Your task to perform on an android device: toggle sleep mode Image 0: 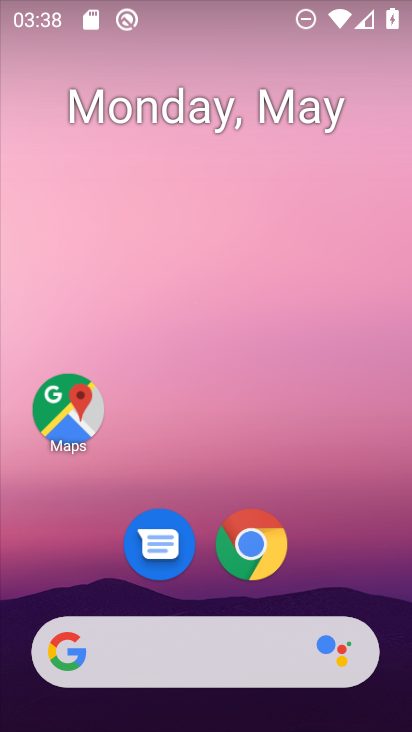
Step 0: drag from (369, 572) to (381, 223)
Your task to perform on an android device: toggle sleep mode Image 1: 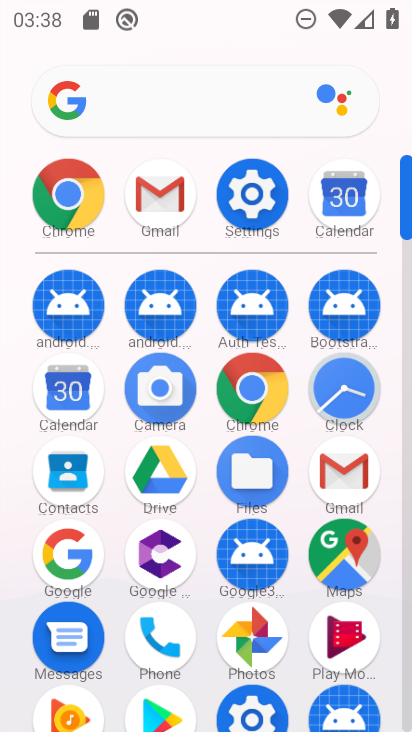
Step 1: click (256, 203)
Your task to perform on an android device: toggle sleep mode Image 2: 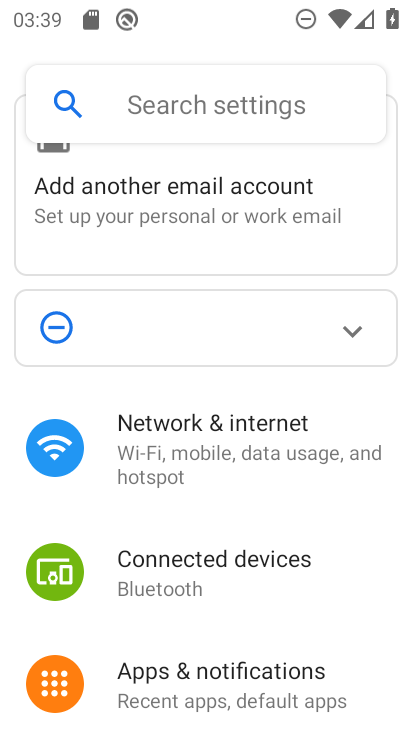
Step 2: drag from (363, 567) to (371, 428)
Your task to perform on an android device: toggle sleep mode Image 3: 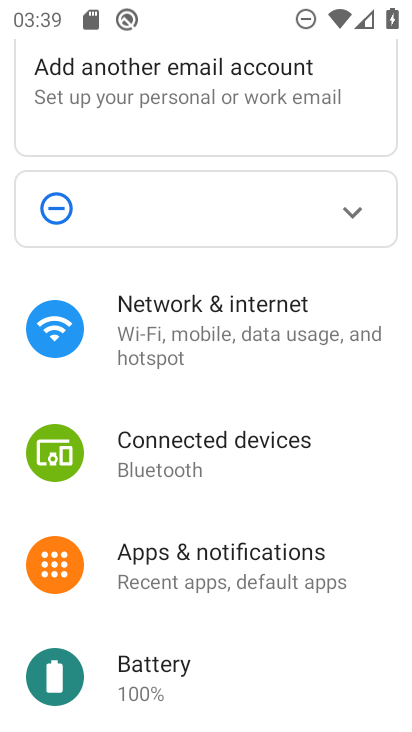
Step 3: drag from (373, 627) to (378, 451)
Your task to perform on an android device: toggle sleep mode Image 4: 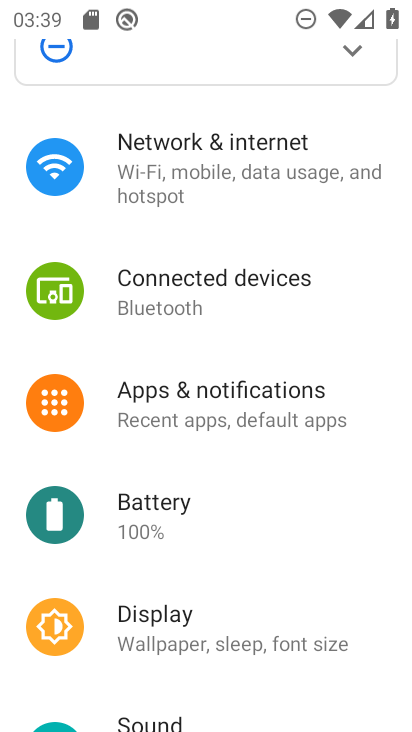
Step 4: drag from (361, 672) to (352, 395)
Your task to perform on an android device: toggle sleep mode Image 5: 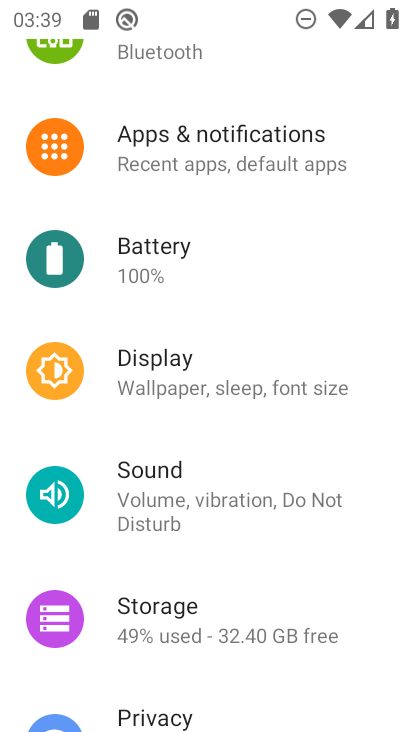
Step 5: drag from (350, 560) to (357, 391)
Your task to perform on an android device: toggle sleep mode Image 6: 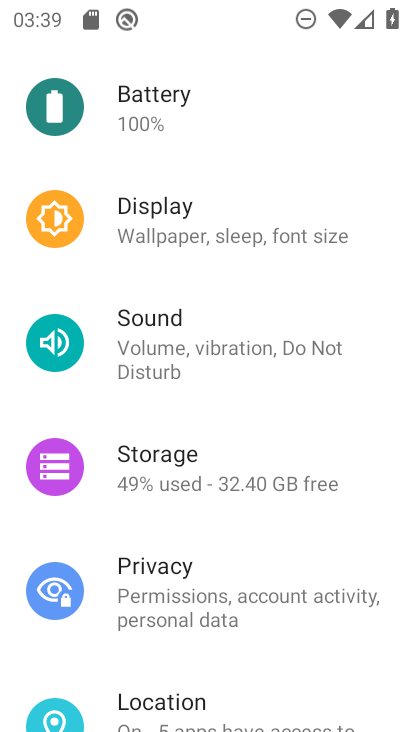
Step 6: drag from (352, 564) to (353, 439)
Your task to perform on an android device: toggle sleep mode Image 7: 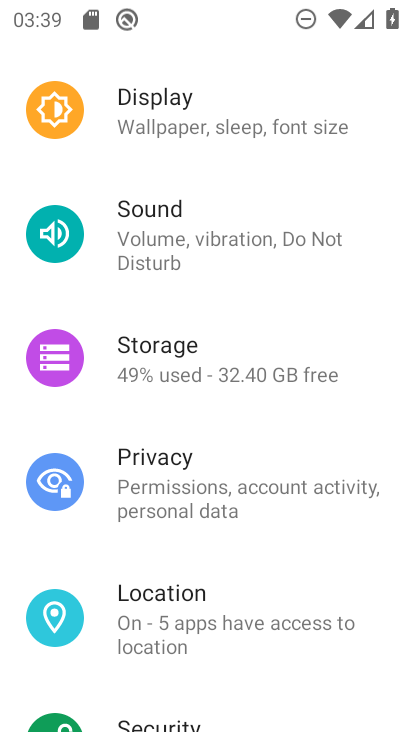
Step 7: drag from (351, 583) to (355, 418)
Your task to perform on an android device: toggle sleep mode Image 8: 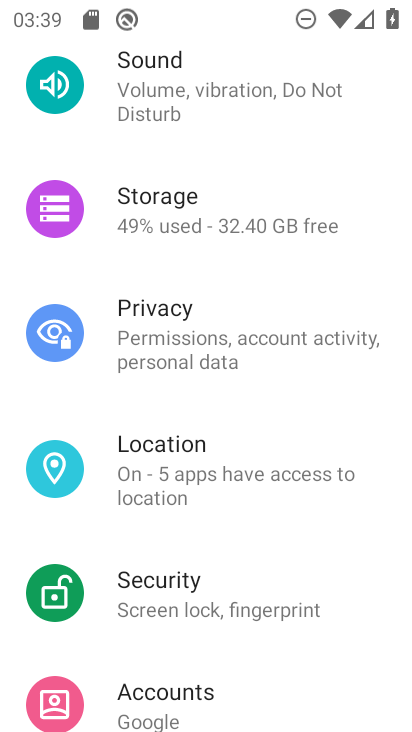
Step 8: drag from (354, 600) to (351, 421)
Your task to perform on an android device: toggle sleep mode Image 9: 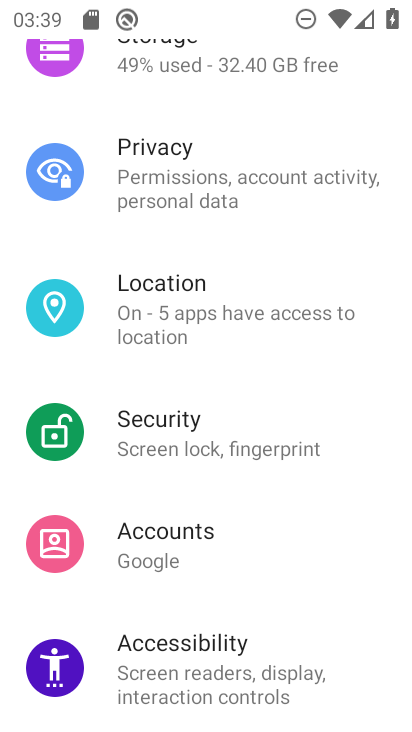
Step 9: drag from (344, 575) to (345, 457)
Your task to perform on an android device: toggle sleep mode Image 10: 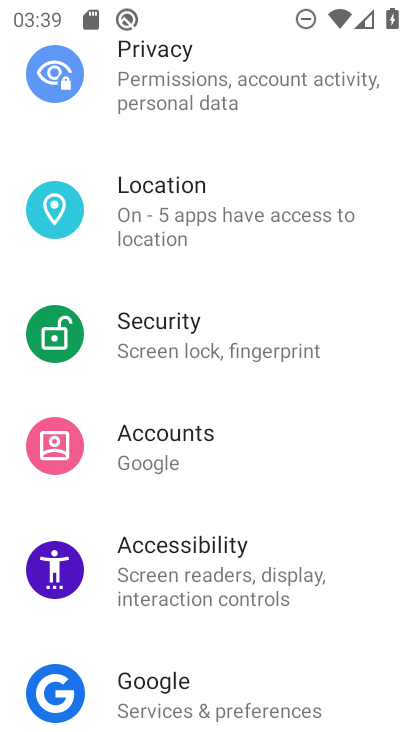
Step 10: drag from (365, 309) to (374, 409)
Your task to perform on an android device: toggle sleep mode Image 11: 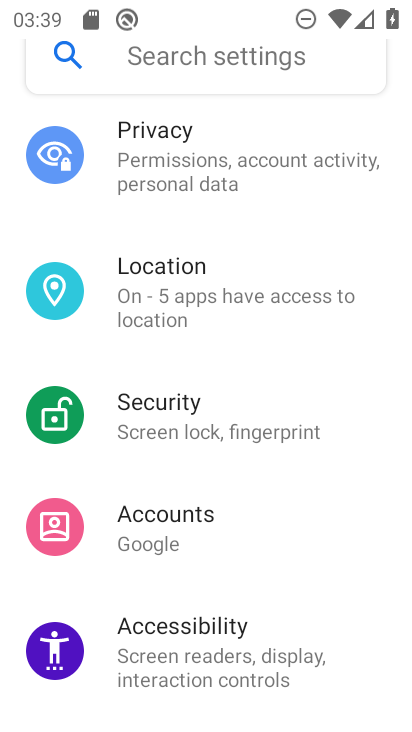
Step 11: drag from (362, 250) to (352, 370)
Your task to perform on an android device: toggle sleep mode Image 12: 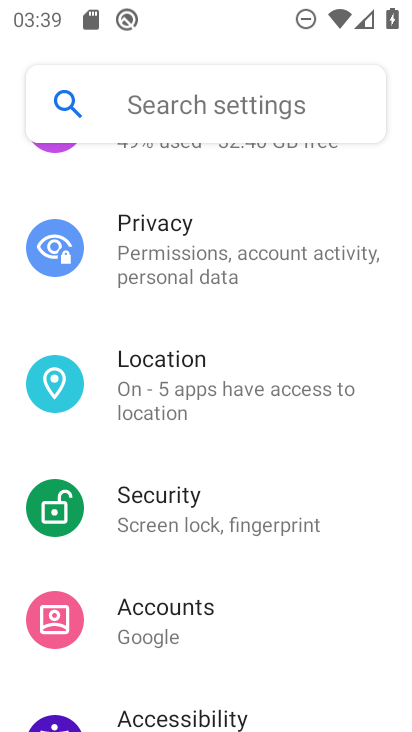
Step 12: drag from (345, 205) to (339, 330)
Your task to perform on an android device: toggle sleep mode Image 13: 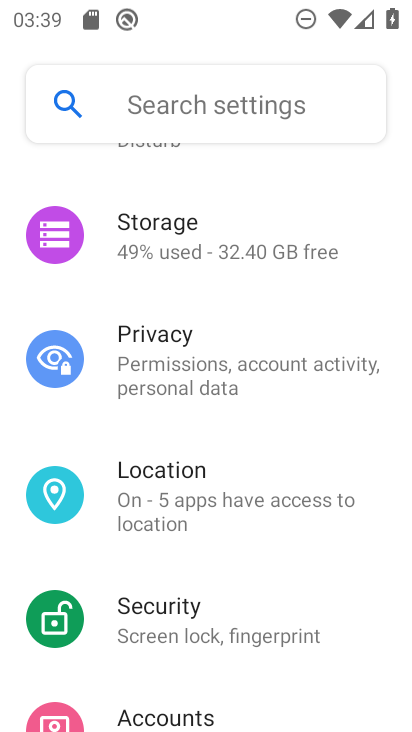
Step 13: drag from (343, 190) to (345, 333)
Your task to perform on an android device: toggle sleep mode Image 14: 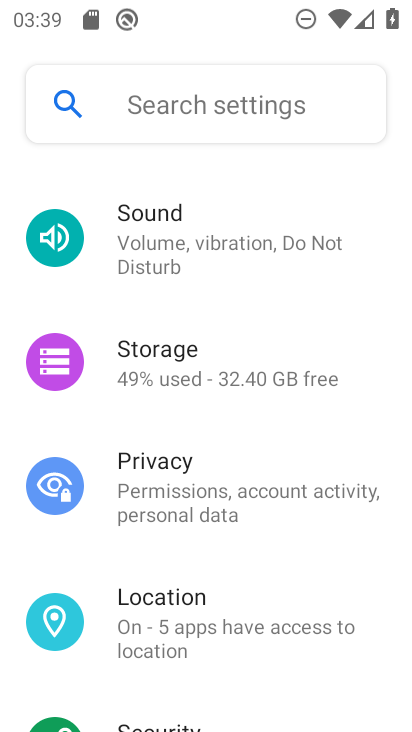
Step 14: drag from (356, 183) to (349, 341)
Your task to perform on an android device: toggle sleep mode Image 15: 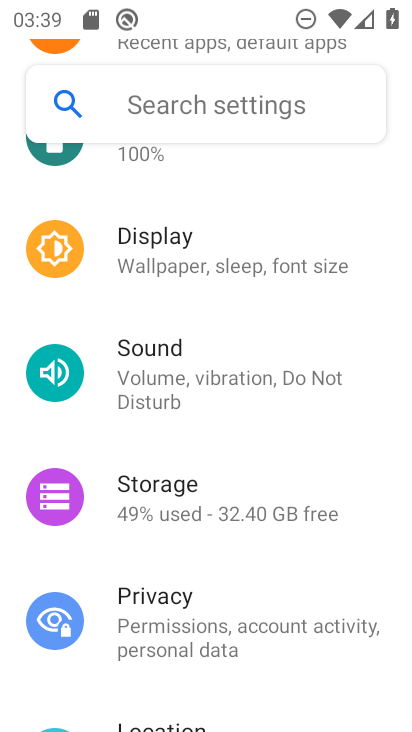
Step 15: click (259, 284)
Your task to perform on an android device: toggle sleep mode Image 16: 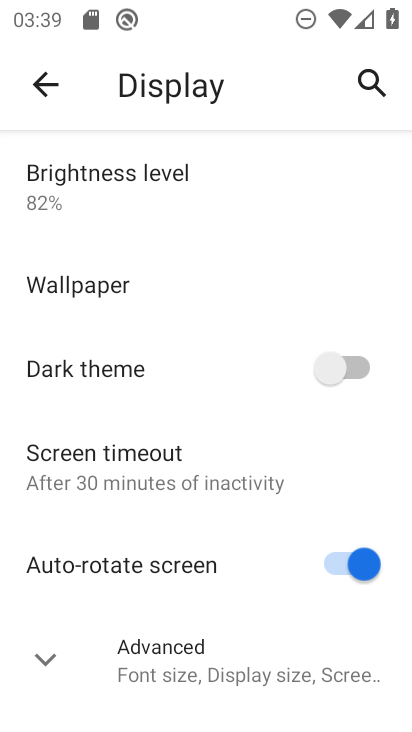
Step 16: click (206, 658)
Your task to perform on an android device: toggle sleep mode Image 17: 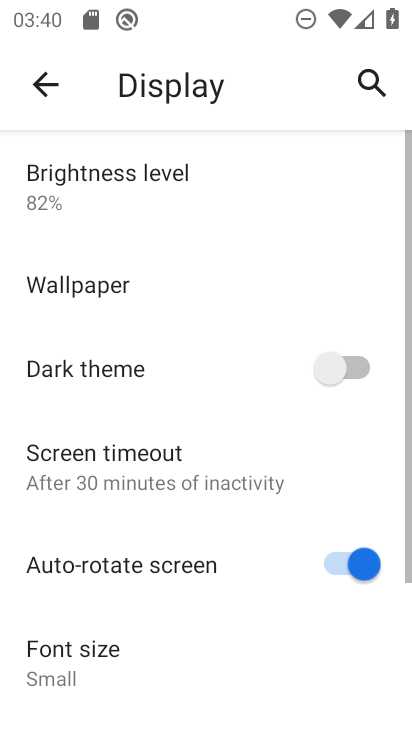
Step 17: task complete